Your task to perform on an android device: create a new album in the google photos Image 0: 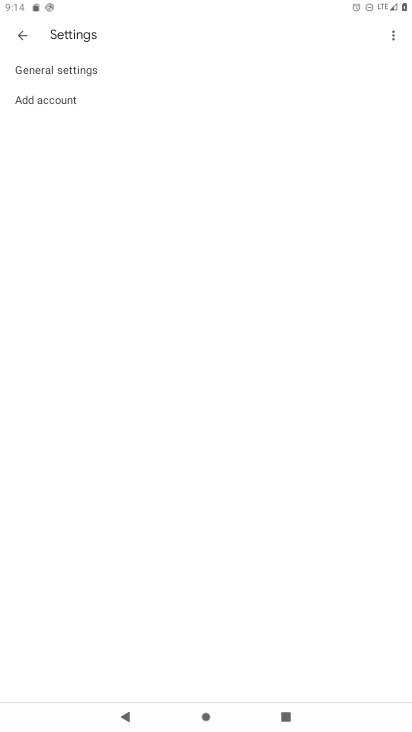
Step 0: press home button
Your task to perform on an android device: create a new album in the google photos Image 1: 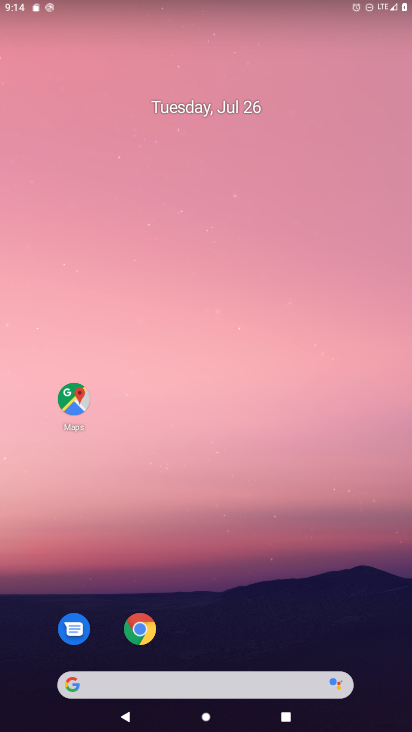
Step 1: drag from (224, 650) to (114, 119)
Your task to perform on an android device: create a new album in the google photos Image 2: 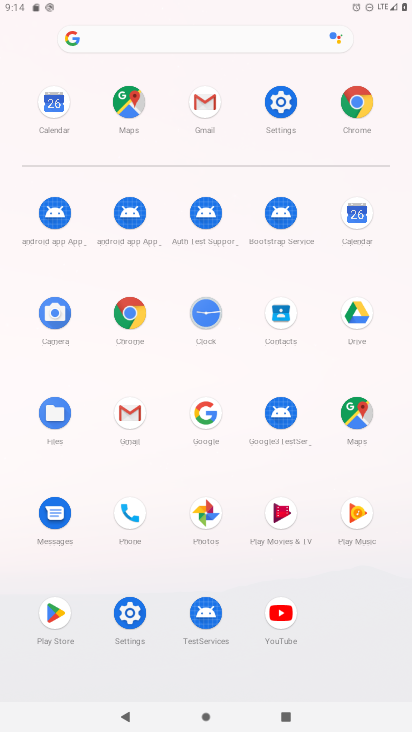
Step 2: click (201, 528)
Your task to perform on an android device: create a new album in the google photos Image 3: 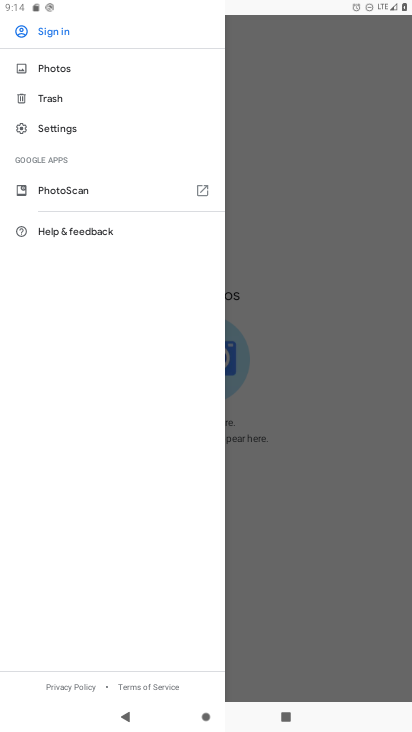
Step 3: click (77, 71)
Your task to perform on an android device: create a new album in the google photos Image 4: 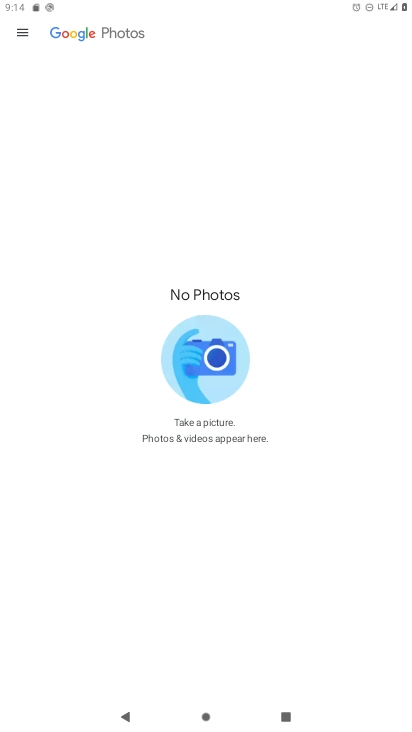
Step 4: task complete